Your task to perform on an android device: allow cookies in the chrome app Image 0: 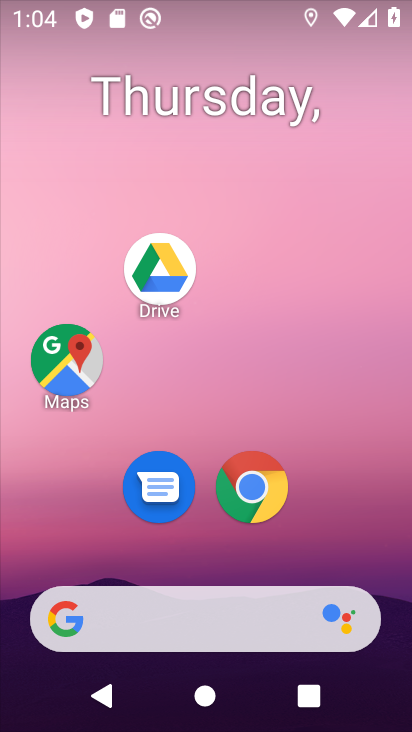
Step 0: drag from (199, 579) to (193, 18)
Your task to perform on an android device: allow cookies in the chrome app Image 1: 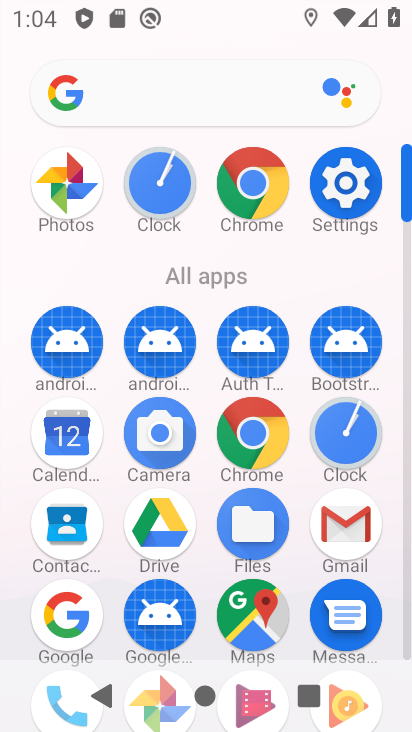
Step 1: click (258, 415)
Your task to perform on an android device: allow cookies in the chrome app Image 2: 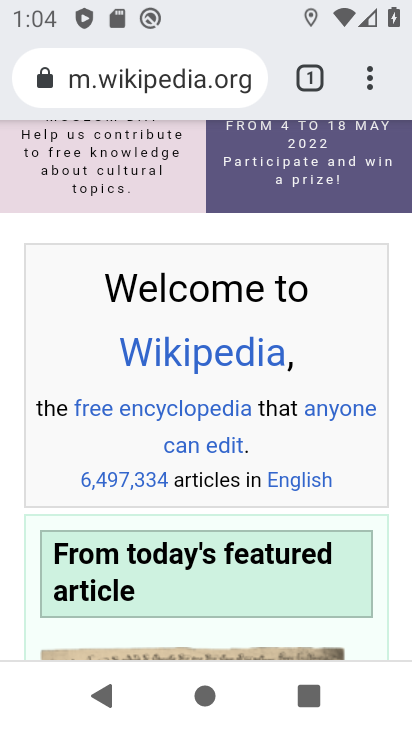
Step 2: drag from (368, 83) to (88, 548)
Your task to perform on an android device: allow cookies in the chrome app Image 3: 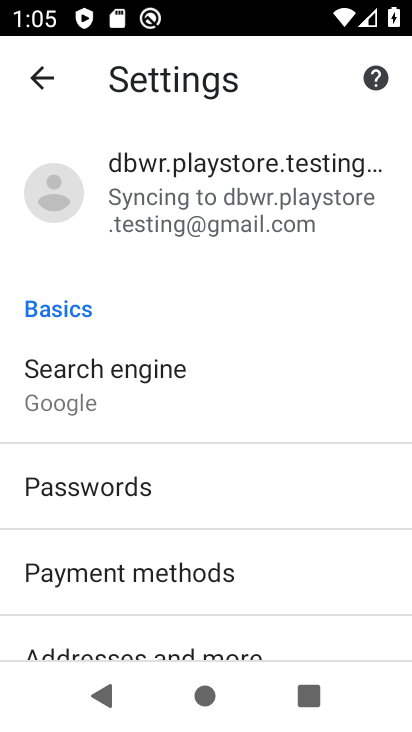
Step 3: drag from (184, 538) to (139, 140)
Your task to perform on an android device: allow cookies in the chrome app Image 4: 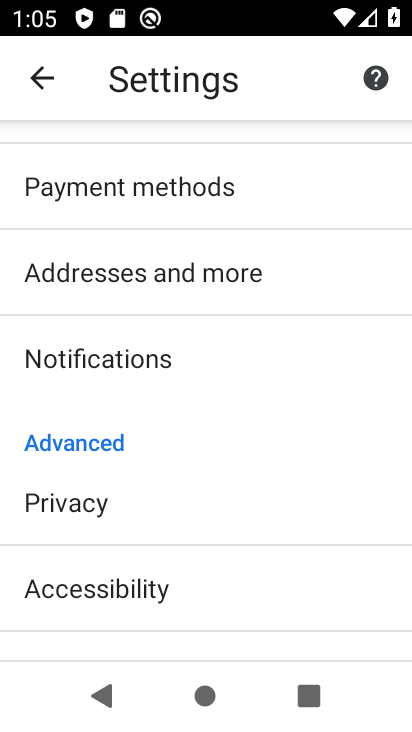
Step 4: drag from (149, 557) to (139, 183)
Your task to perform on an android device: allow cookies in the chrome app Image 5: 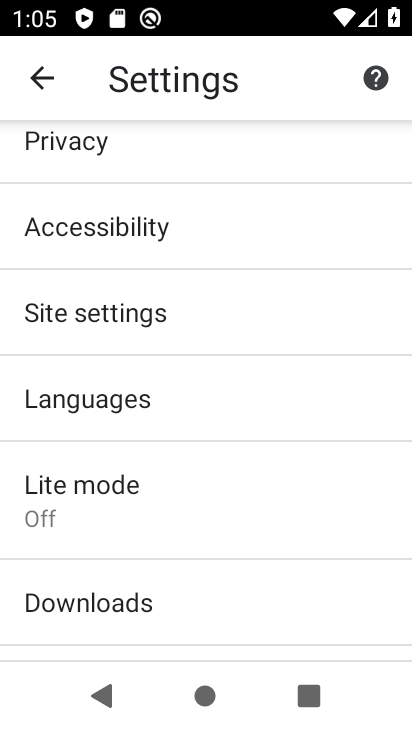
Step 5: click (129, 319)
Your task to perform on an android device: allow cookies in the chrome app Image 6: 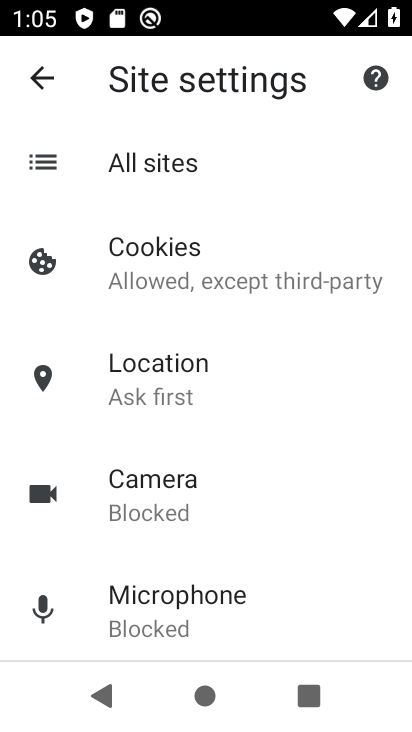
Step 6: click (172, 279)
Your task to perform on an android device: allow cookies in the chrome app Image 7: 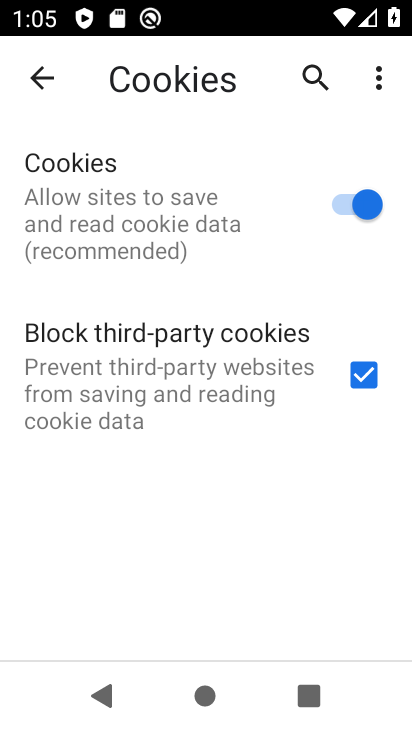
Step 7: task complete